Your task to perform on an android device: empty trash in the gmail app Image 0: 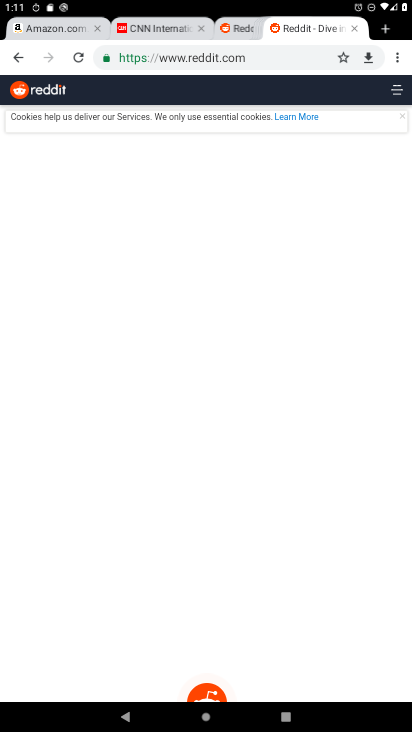
Step 0: drag from (209, 620) to (220, 224)
Your task to perform on an android device: empty trash in the gmail app Image 1: 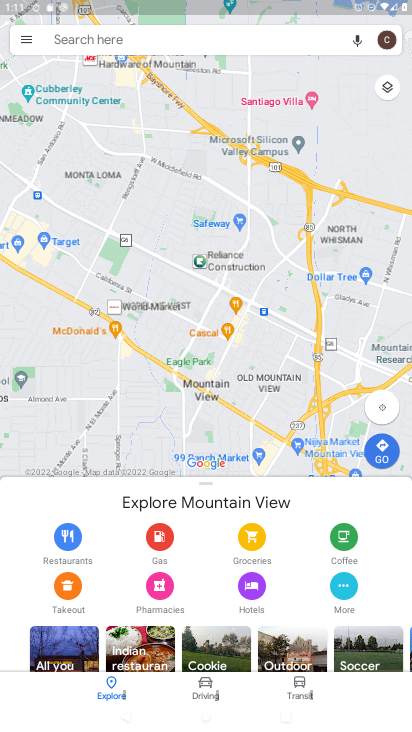
Step 1: press home button
Your task to perform on an android device: empty trash in the gmail app Image 2: 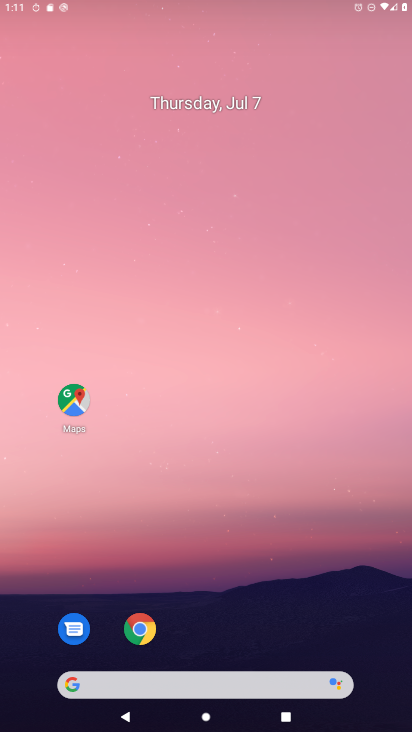
Step 2: drag from (223, 456) to (216, 101)
Your task to perform on an android device: empty trash in the gmail app Image 3: 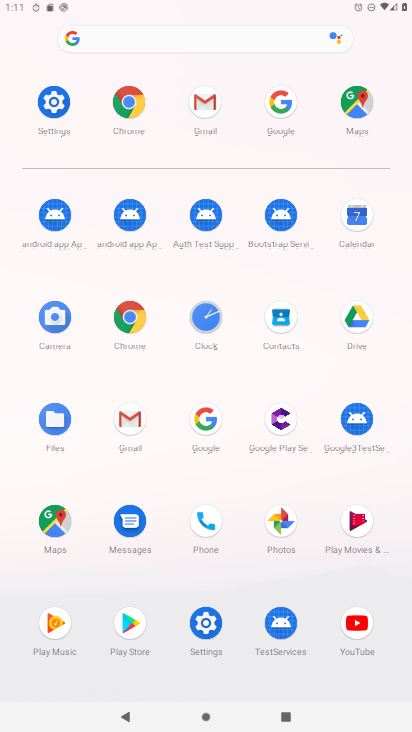
Step 3: click (216, 95)
Your task to perform on an android device: empty trash in the gmail app Image 4: 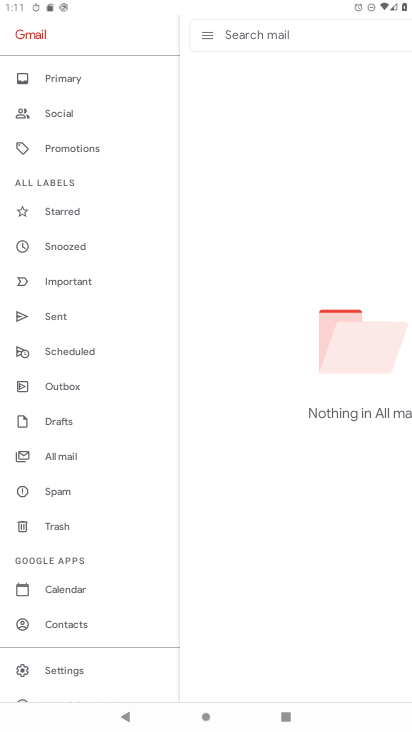
Step 4: click (71, 534)
Your task to perform on an android device: empty trash in the gmail app Image 5: 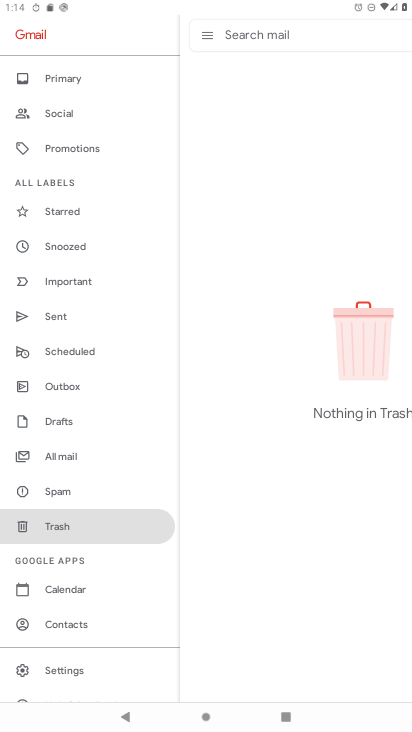
Step 5: task complete